Your task to perform on an android device: move an email to a new category in the gmail app Image 0: 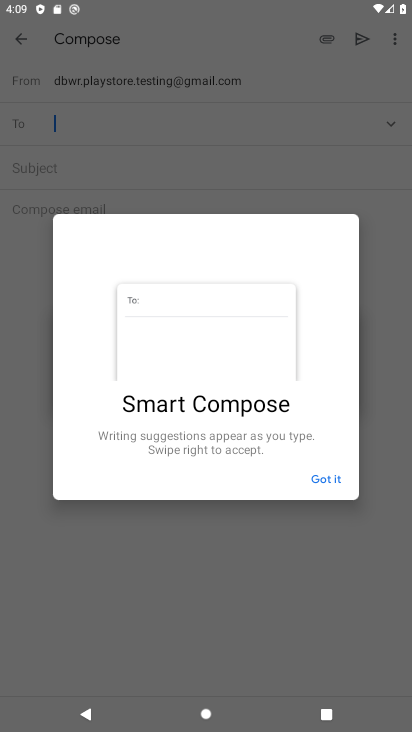
Step 0: press back button
Your task to perform on an android device: move an email to a new category in the gmail app Image 1: 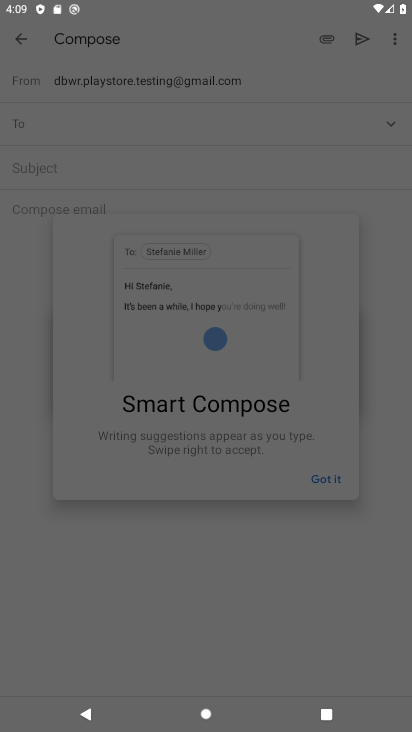
Step 1: press home button
Your task to perform on an android device: move an email to a new category in the gmail app Image 2: 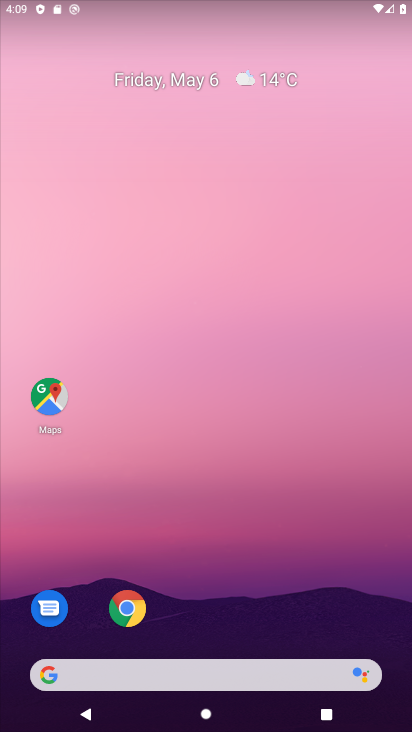
Step 2: drag from (190, 602) to (281, 107)
Your task to perform on an android device: move an email to a new category in the gmail app Image 3: 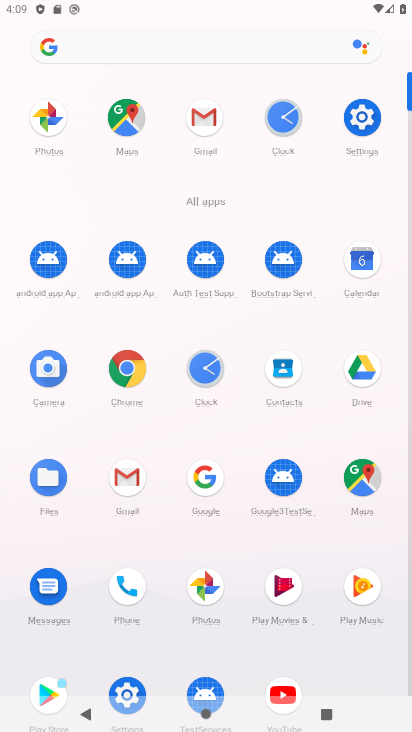
Step 3: click (130, 492)
Your task to perform on an android device: move an email to a new category in the gmail app Image 4: 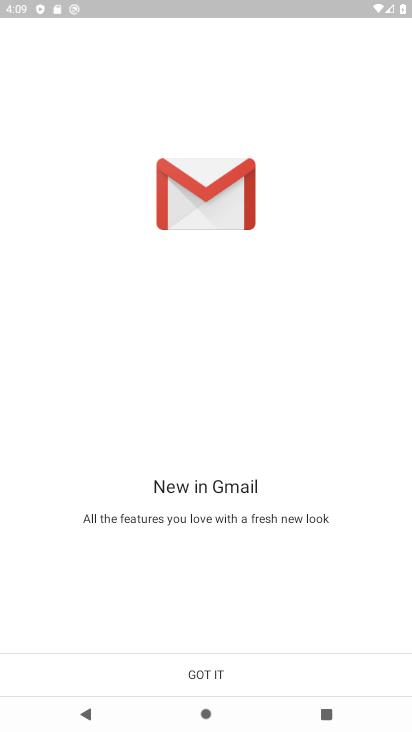
Step 4: click (191, 704)
Your task to perform on an android device: move an email to a new category in the gmail app Image 5: 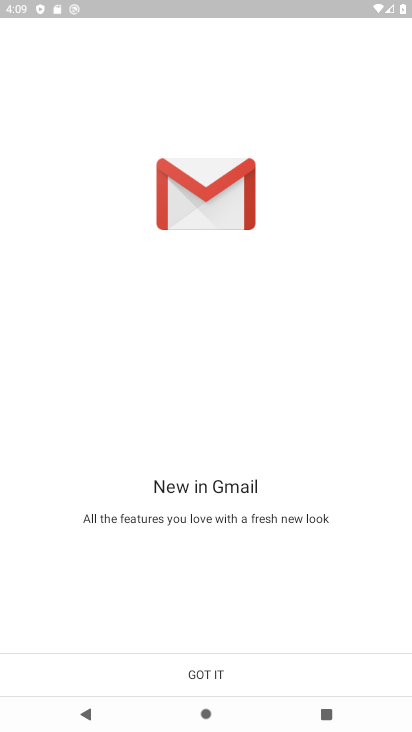
Step 5: click (226, 681)
Your task to perform on an android device: move an email to a new category in the gmail app Image 6: 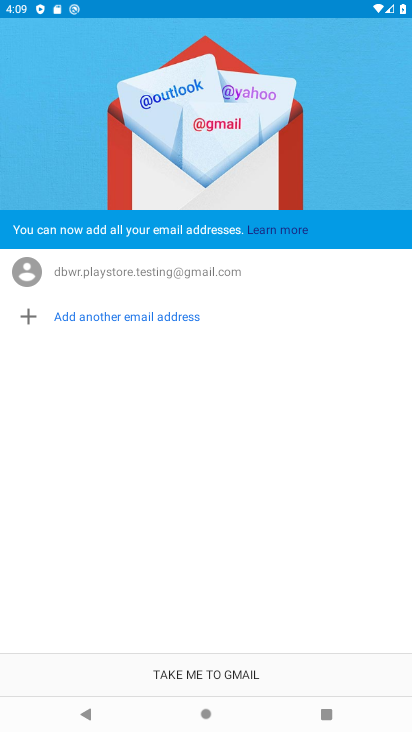
Step 6: click (215, 672)
Your task to perform on an android device: move an email to a new category in the gmail app Image 7: 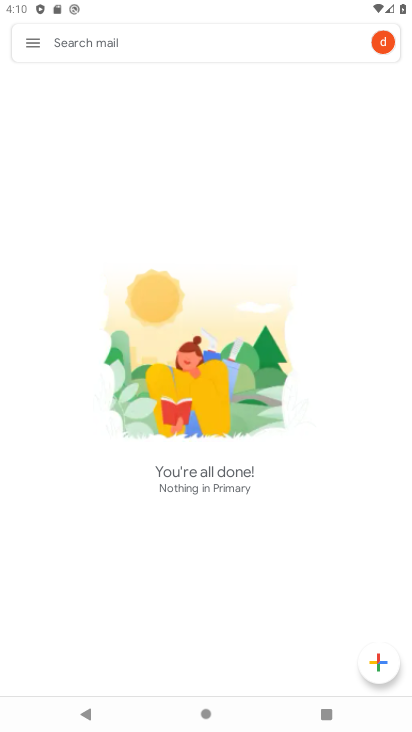
Step 7: click (37, 40)
Your task to perform on an android device: move an email to a new category in the gmail app Image 8: 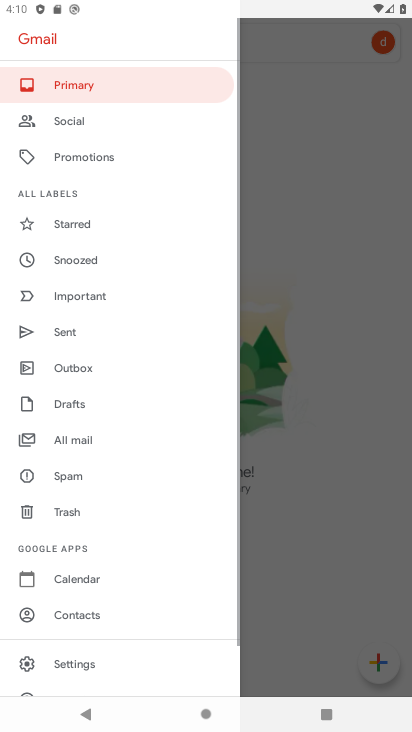
Step 8: drag from (37, 40) to (105, 418)
Your task to perform on an android device: move an email to a new category in the gmail app Image 9: 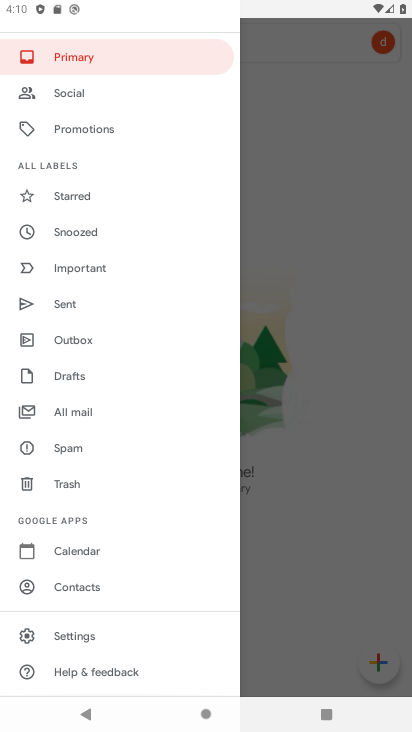
Step 9: click (98, 412)
Your task to perform on an android device: move an email to a new category in the gmail app Image 10: 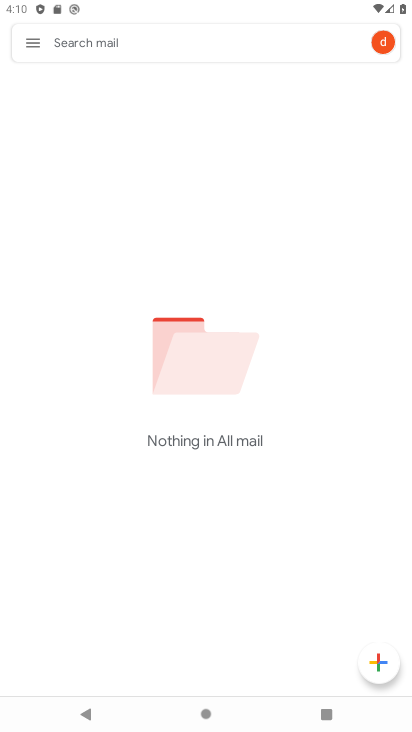
Step 10: task complete